Your task to perform on an android device: Open privacy settings Image 0: 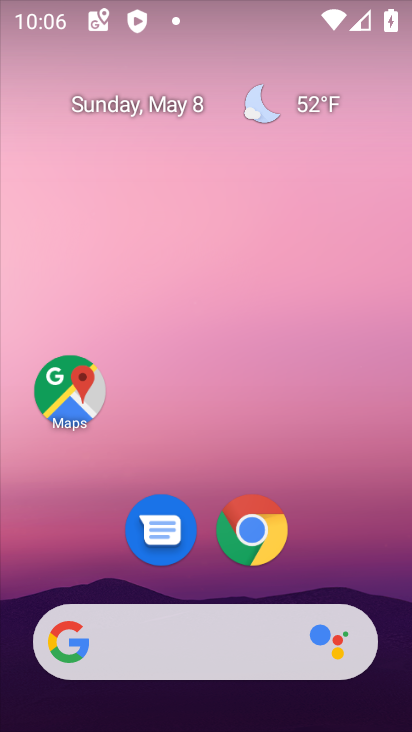
Step 0: drag from (384, 564) to (311, 65)
Your task to perform on an android device: Open privacy settings Image 1: 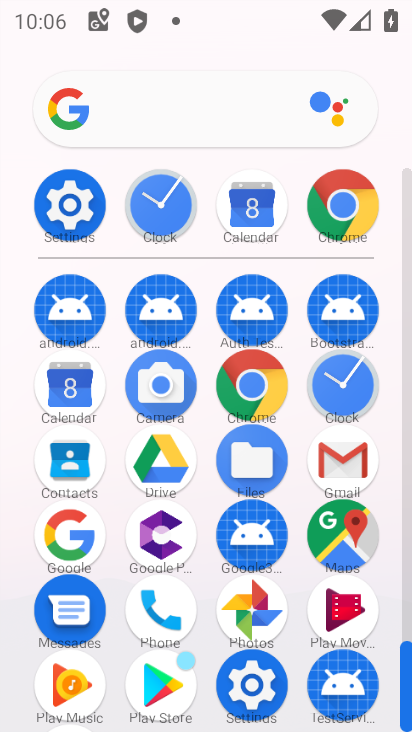
Step 1: click (59, 201)
Your task to perform on an android device: Open privacy settings Image 2: 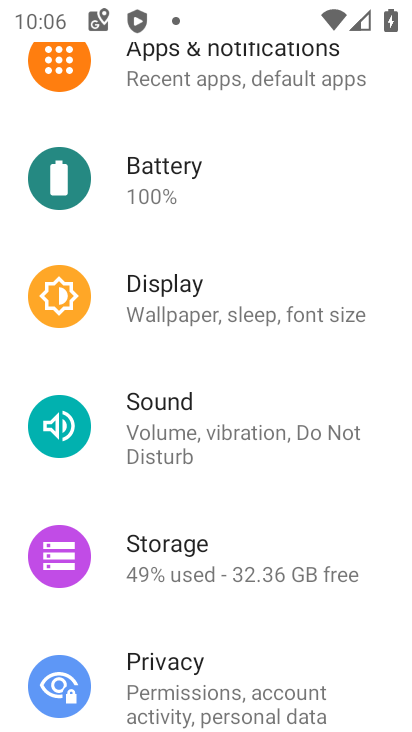
Step 2: drag from (283, 647) to (327, 302)
Your task to perform on an android device: Open privacy settings Image 3: 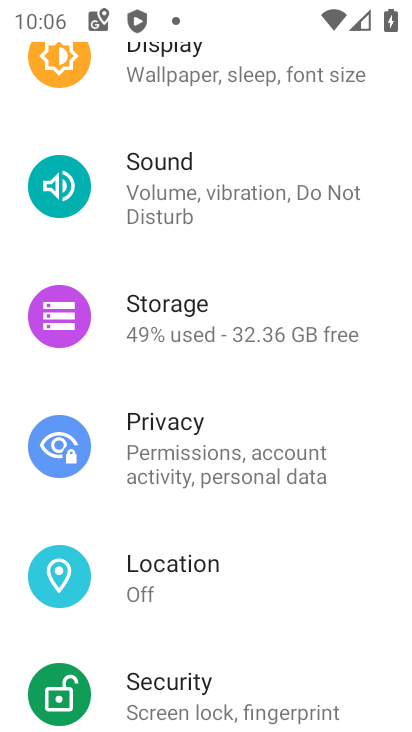
Step 3: click (130, 455)
Your task to perform on an android device: Open privacy settings Image 4: 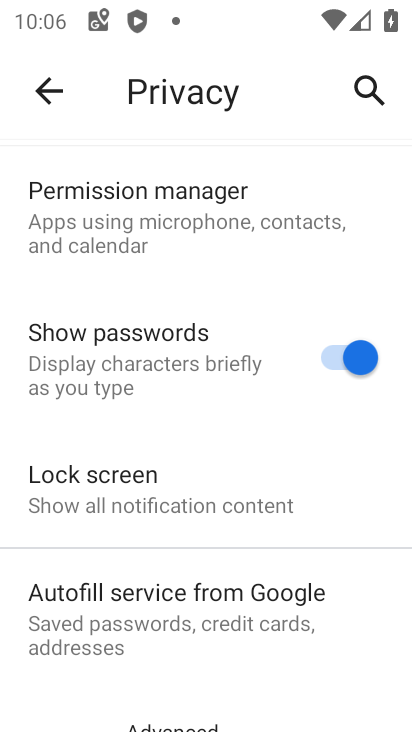
Step 4: task complete